Your task to perform on an android device: Open the calendar app, open the side menu, and click the "Day" option Image 0: 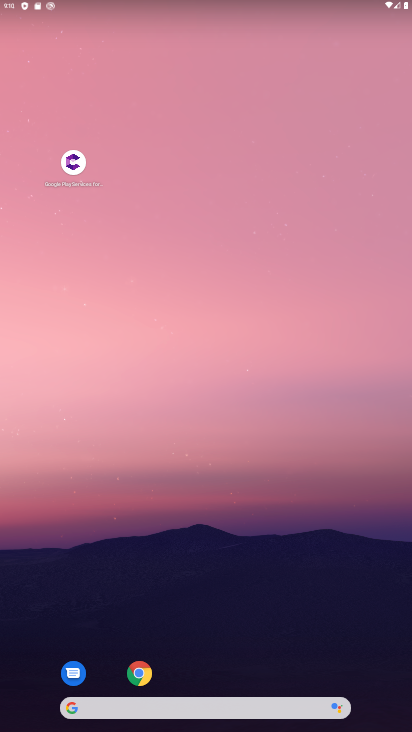
Step 0: drag from (292, 619) to (348, 102)
Your task to perform on an android device: Open the calendar app, open the side menu, and click the "Day" option Image 1: 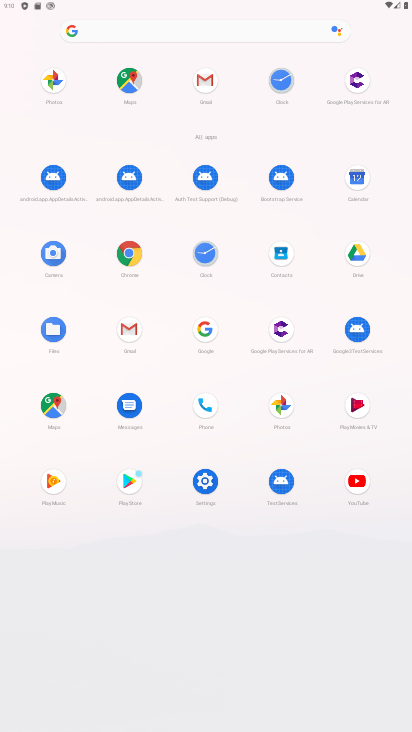
Step 1: click (356, 177)
Your task to perform on an android device: Open the calendar app, open the side menu, and click the "Day" option Image 2: 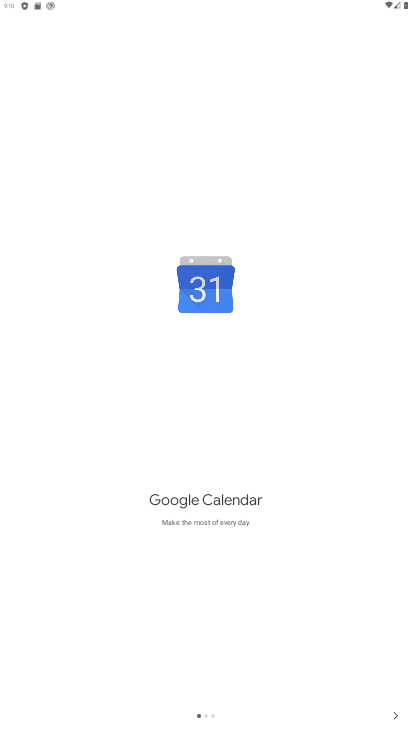
Step 2: click (396, 714)
Your task to perform on an android device: Open the calendar app, open the side menu, and click the "Day" option Image 3: 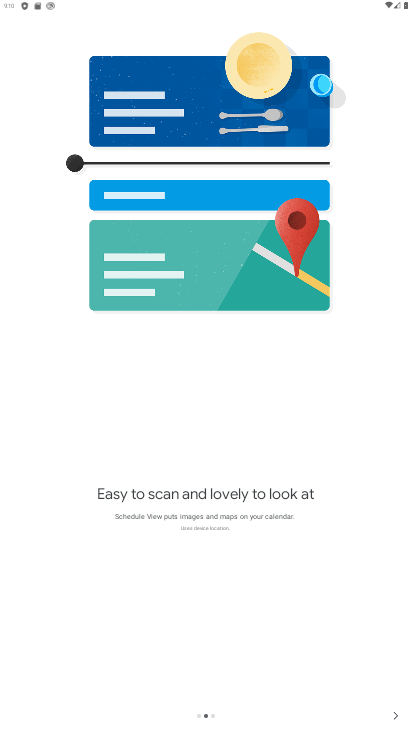
Step 3: click (395, 724)
Your task to perform on an android device: Open the calendar app, open the side menu, and click the "Day" option Image 4: 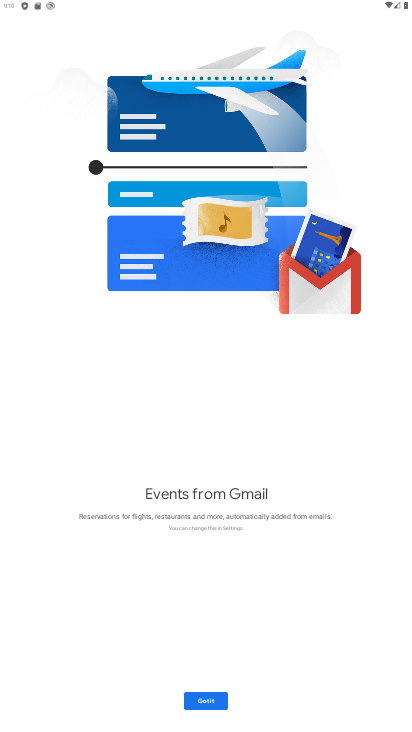
Step 4: click (199, 706)
Your task to perform on an android device: Open the calendar app, open the side menu, and click the "Day" option Image 5: 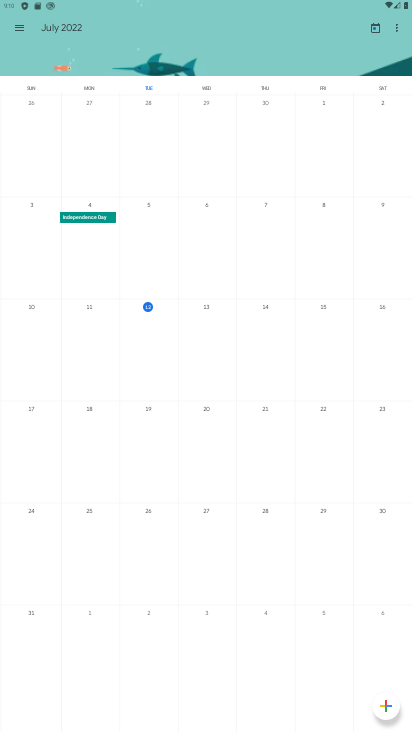
Step 5: click (13, 29)
Your task to perform on an android device: Open the calendar app, open the side menu, and click the "Day" option Image 6: 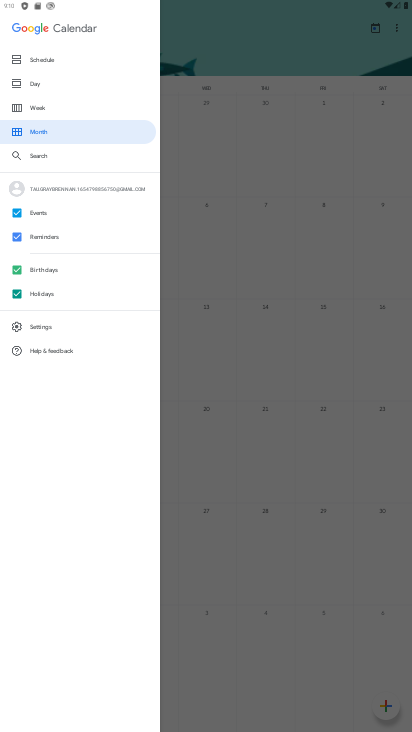
Step 6: click (27, 84)
Your task to perform on an android device: Open the calendar app, open the side menu, and click the "Day" option Image 7: 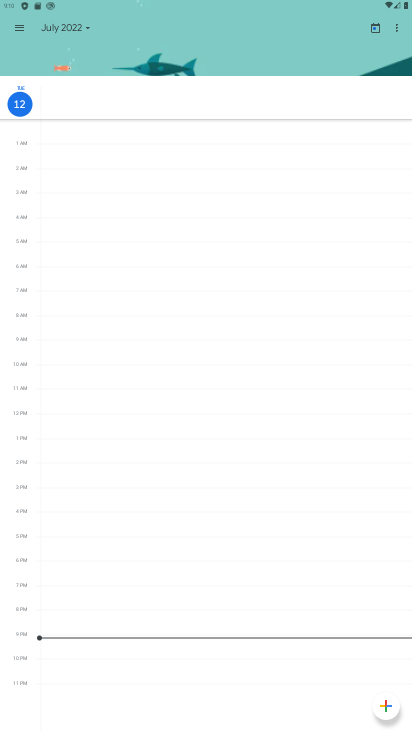
Step 7: task complete